Your task to perform on an android device: When is my next meeting? Image 0: 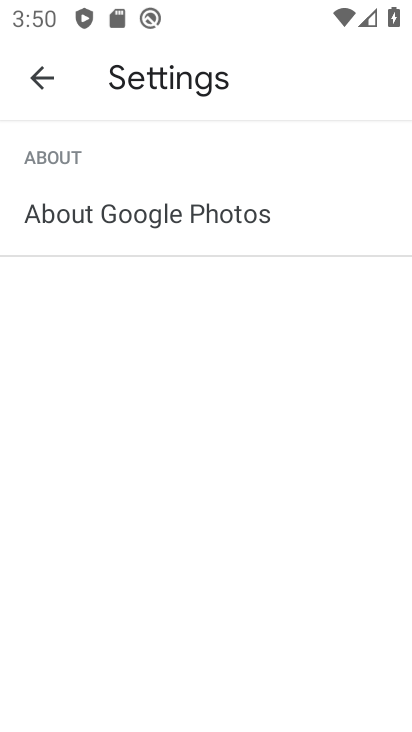
Step 0: click (37, 74)
Your task to perform on an android device: When is my next meeting? Image 1: 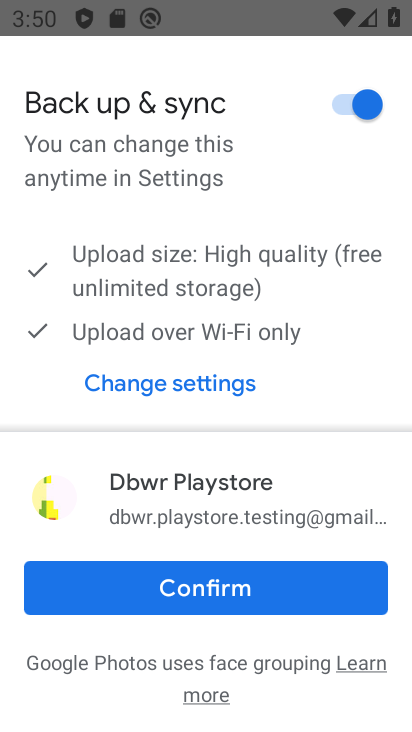
Step 1: press back button
Your task to perform on an android device: When is my next meeting? Image 2: 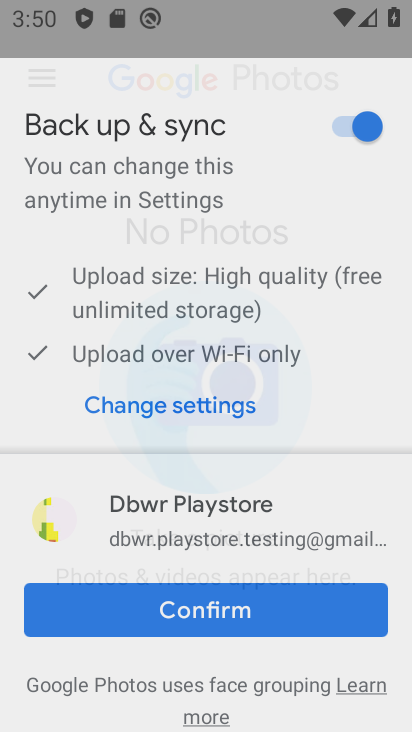
Step 2: press back button
Your task to perform on an android device: When is my next meeting? Image 3: 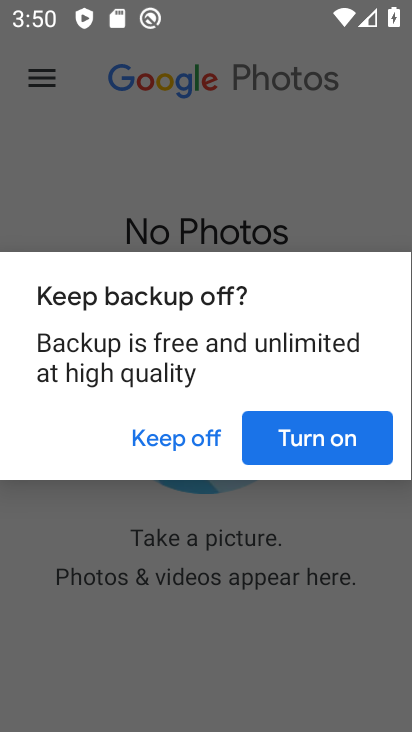
Step 3: press back button
Your task to perform on an android device: When is my next meeting? Image 4: 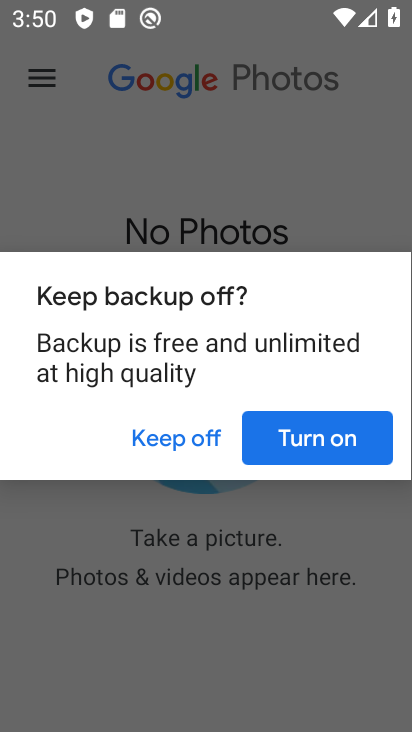
Step 4: click (322, 438)
Your task to perform on an android device: When is my next meeting? Image 5: 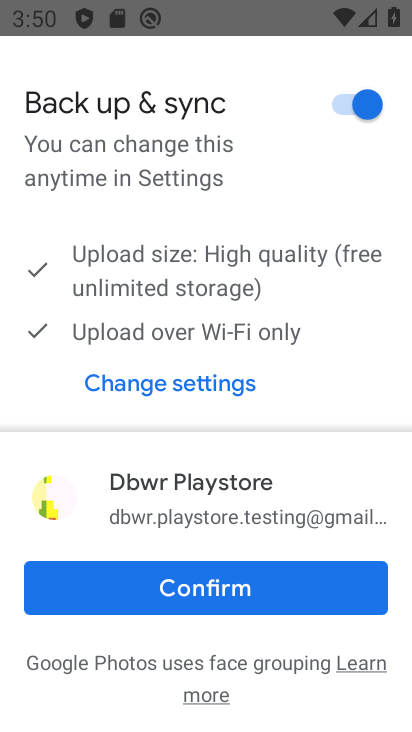
Step 5: click (223, 596)
Your task to perform on an android device: When is my next meeting? Image 6: 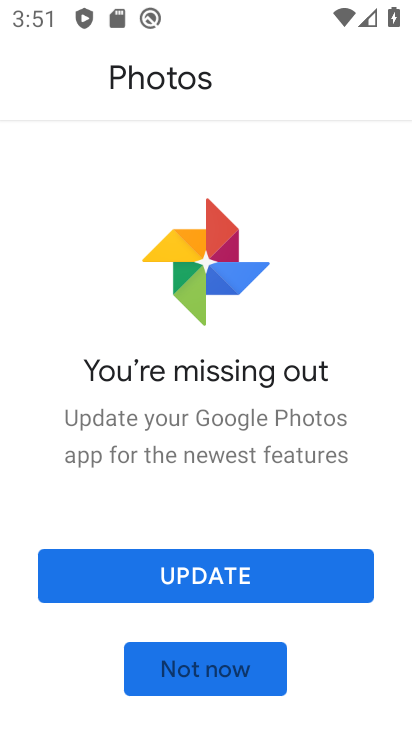
Step 6: press back button
Your task to perform on an android device: When is my next meeting? Image 7: 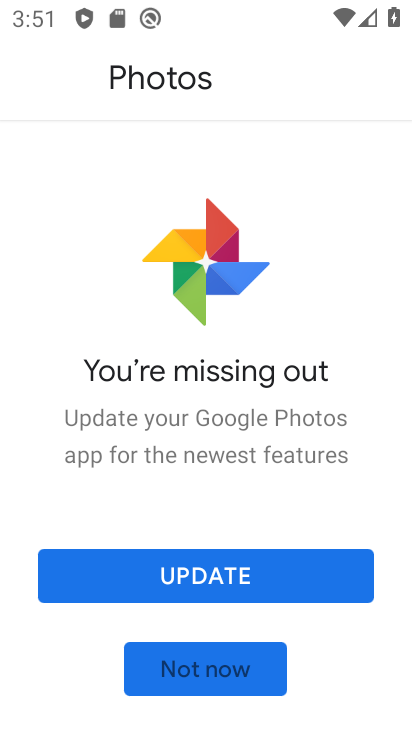
Step 7: press back button
Your task to perform on an android device: When is my next meeting? Image 8: 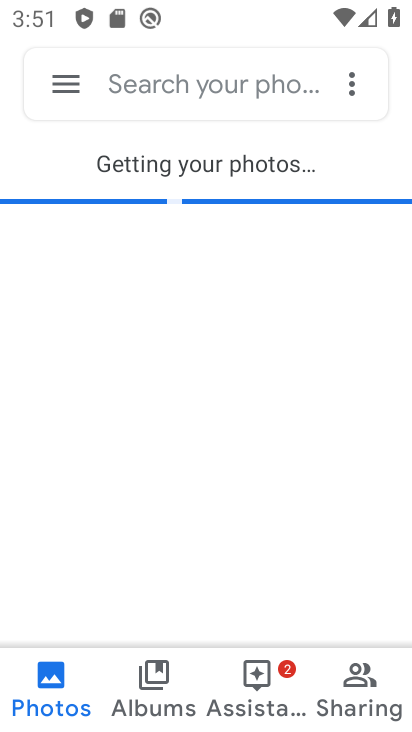
Step 8: press back button
Your task to perform on an android device: When is my next meeting? Image 9: 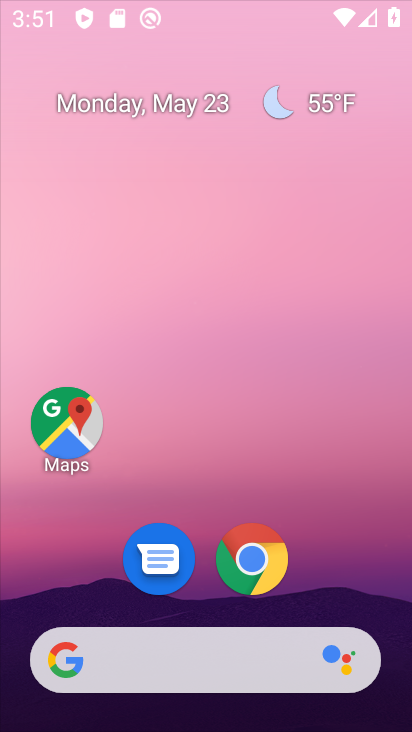
Step 9: press back button
Your task to perform on an android device: When is my next meeting? Image 10: 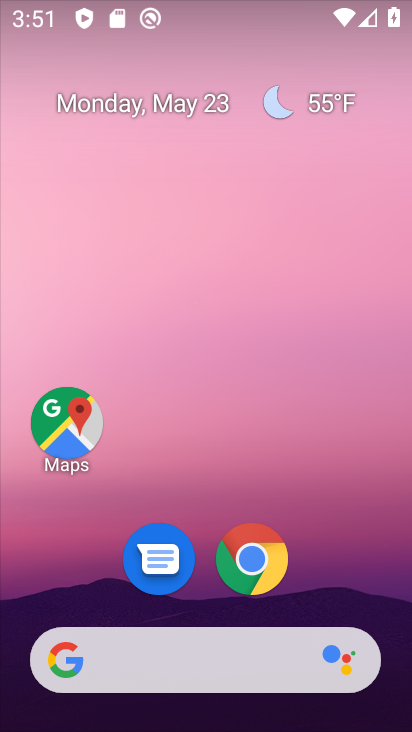
Step 10: drag from (338, 542) to (107, 0)
Your task to perform on an android device: When is my next meeting? Image 11: 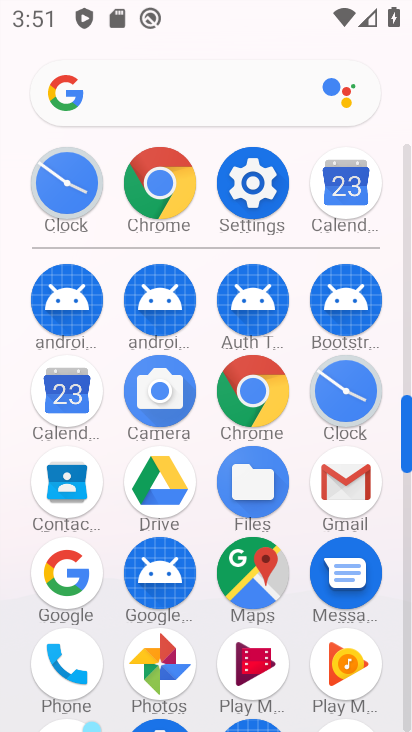
Step 11: click (43, 390)
Your task to perform on an android device: When is my next meeting? Image 12: 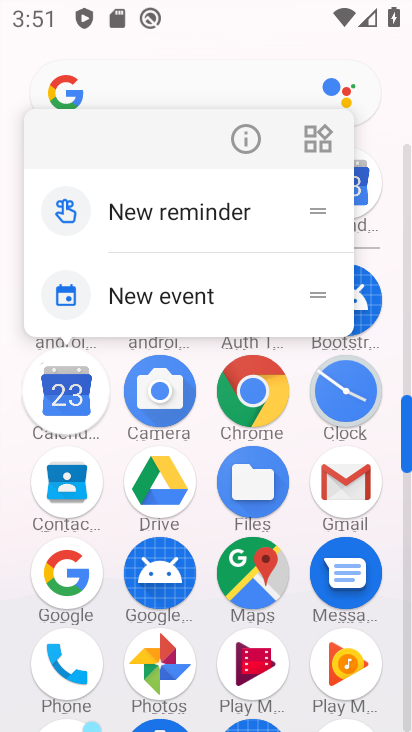
Step 12: click (43, 390)
Your task to perform on an android device: When is my next meeting? Image 13: 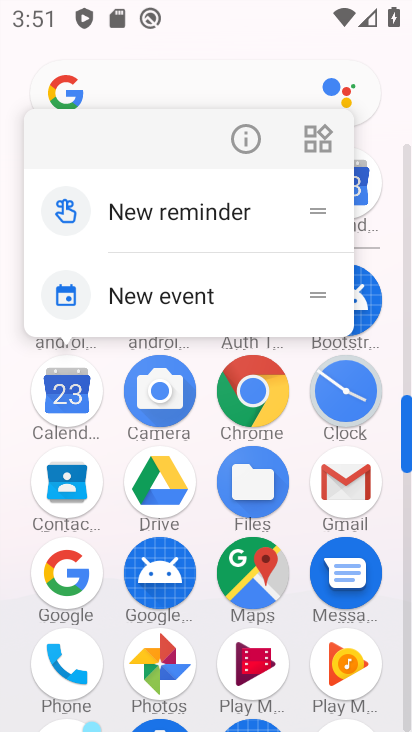
Step 13: click (74, 393)
Your task to perform on an android device: When is my next meeting? Image 14: 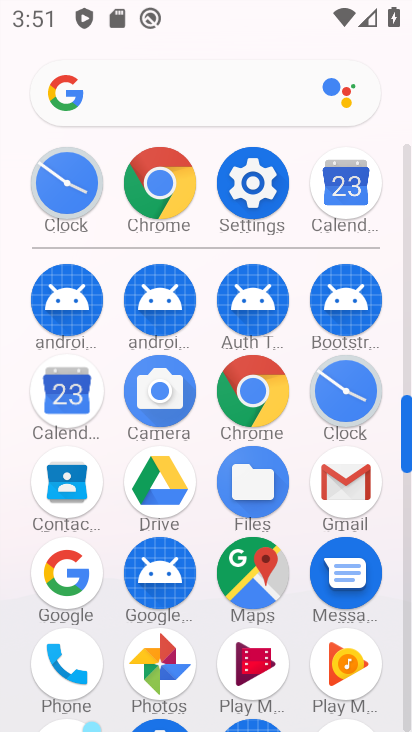
Step 14: click (74, 393)
Your task to perform on an android device: When is my next meeting? Image 15: 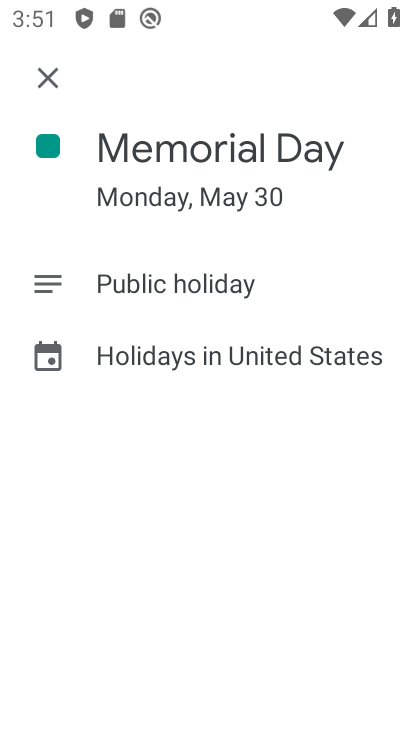
Step 15: click (43, 87)
Your task to perform on an android device: When is my next meeting? Image 16: 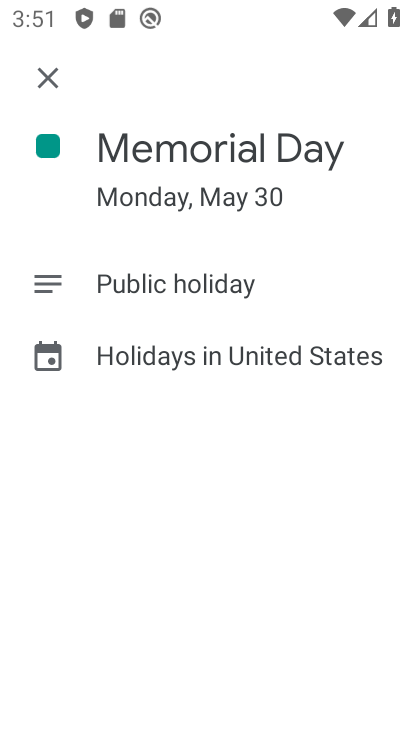
Step 16: click (42, 88)
Your task to perform on an android device: When is my next meeting? Image 17: 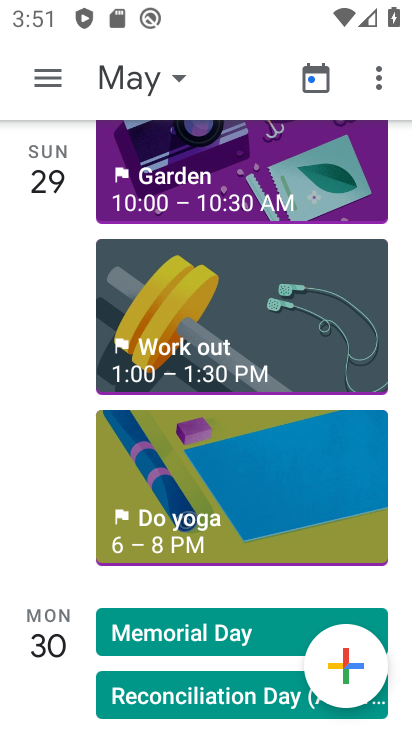
Step 17: drag from (198, 563) to (197, 164)
Your task to perform on an android device: When is my next meeting? Image 18: 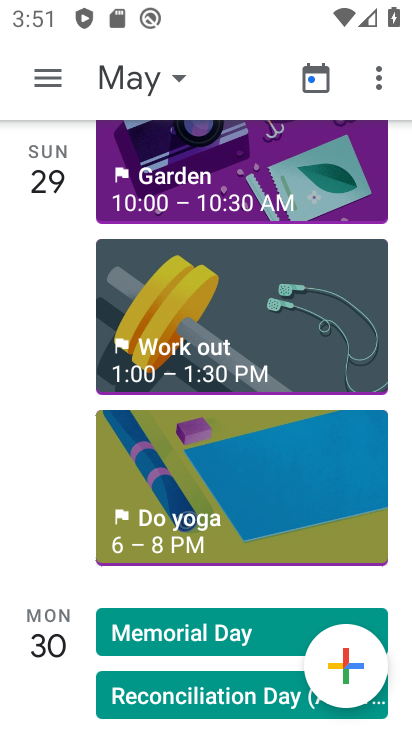
Step 18: drag from (210, 454) to (178, 113)
Your task to perform on an android device: When is my next meeting? Image 19: 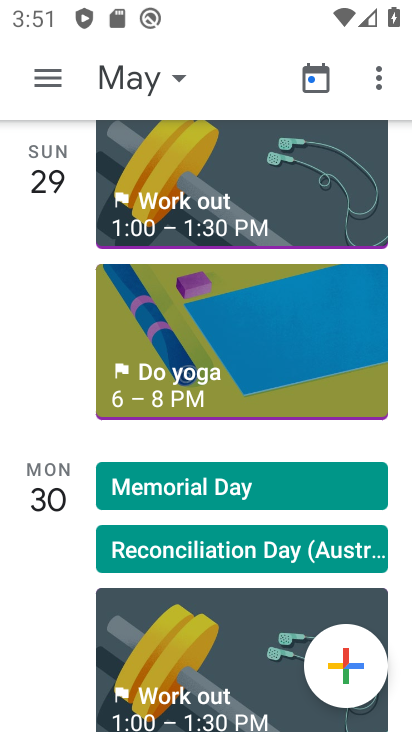
Step 19: drag from (221, 437) to (205, 153)
Your task to perform on an android device: When is my next meeting? Image 20: 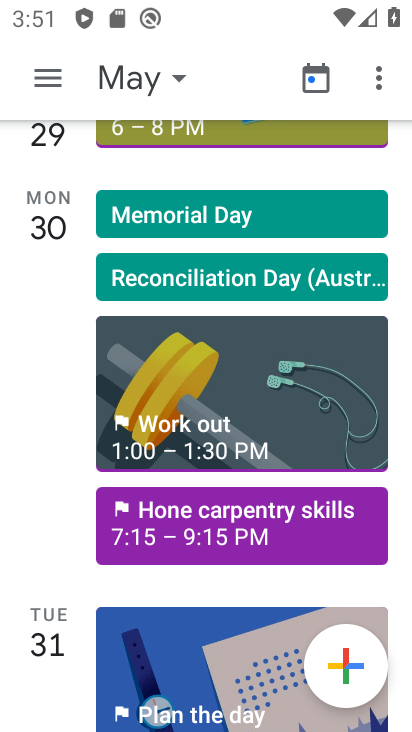
Step 20: drag from (209, 608) to (204, 157)
Your task to perform on an android device: When is my next meeting? Image 21: 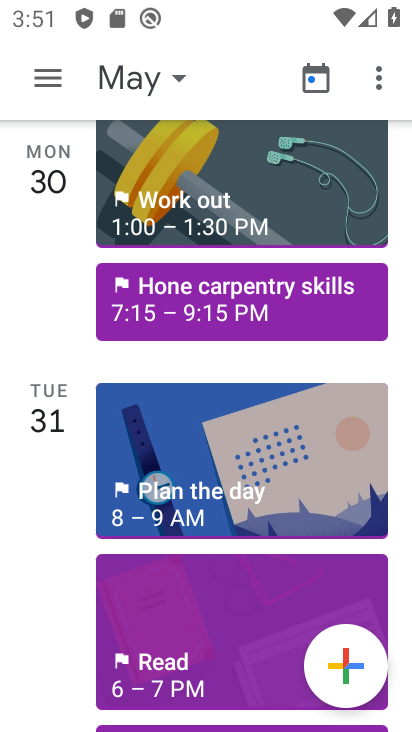
Step 21: drag from (212, 493) to (232, 33)
Your task to perform on an android device: When is my next meeting? Image 22: 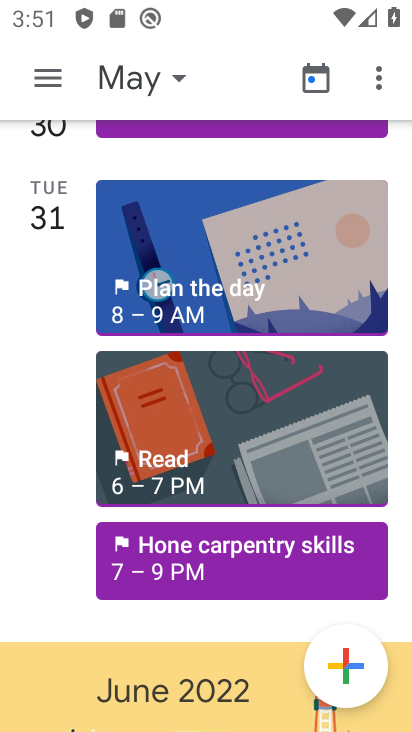
Step 22: click (157, 243)
Your task to perform on an android device: When is my next meeting? Image 23: 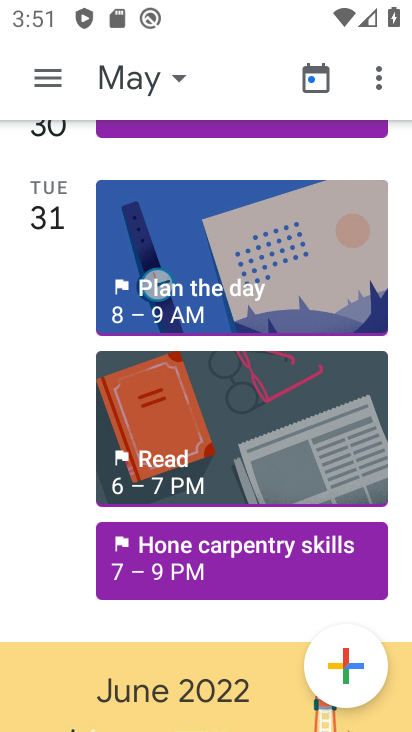
Step 23: click (157, 243)
Your task to perform on an android device: When is my next meeting? Image 24: 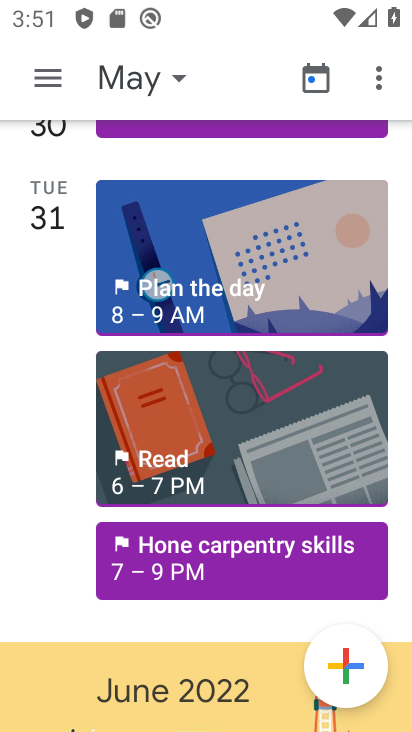
Step 24: click (157, 243)
Your task to perform on an android device: When is my next meeting? Image 25: 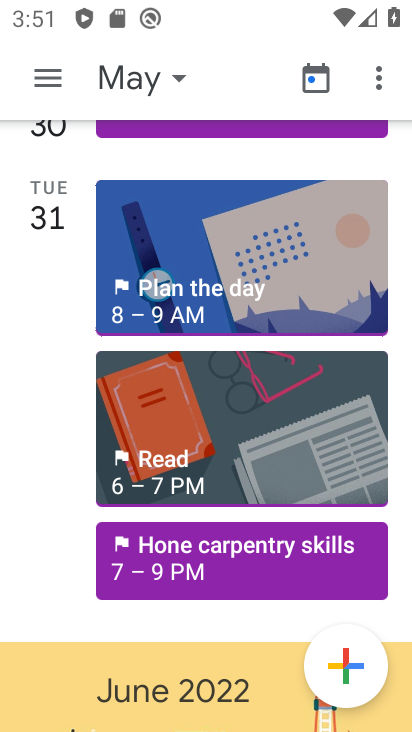
Step 25: click (157, 243)
Your task to perform on an android device: When is my next meeting? Image 26: 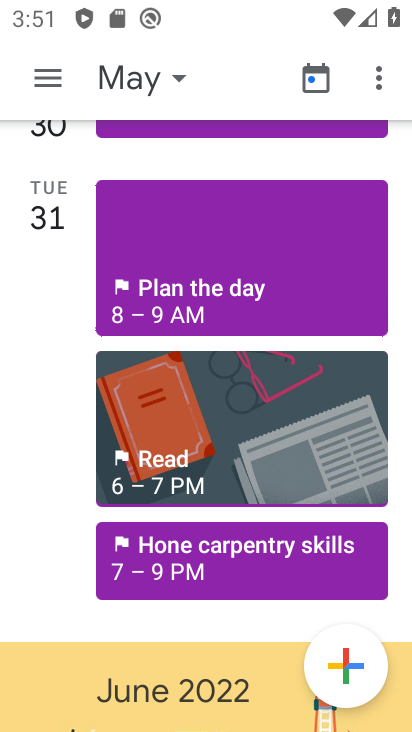
Step 26: task complete